Your task to perform on an android device: change text size in settings app Image 0: 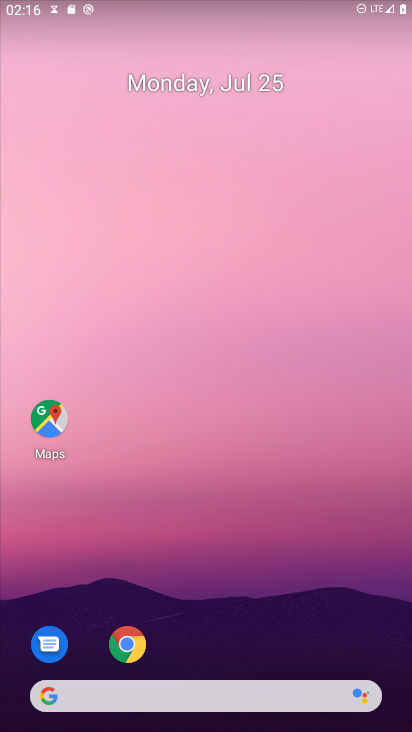
Step 0: drag from (207, 726) to (200, 329)
Your task to perform on an android device: change text size in settings app Image 1: 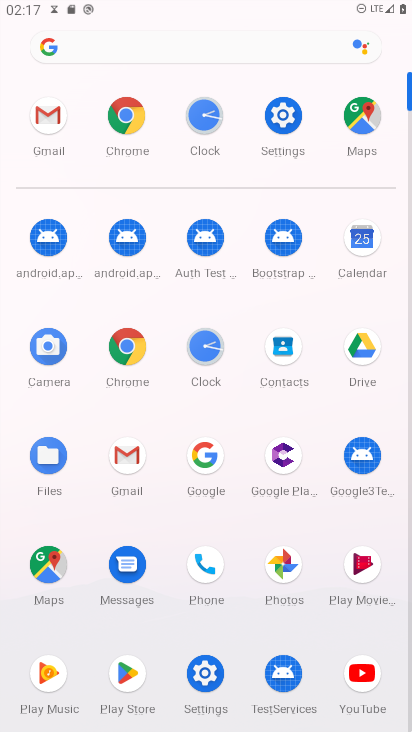
Step 1: click (276, 109)
Your task to perform on an android device: change text size in settings app Image 2: 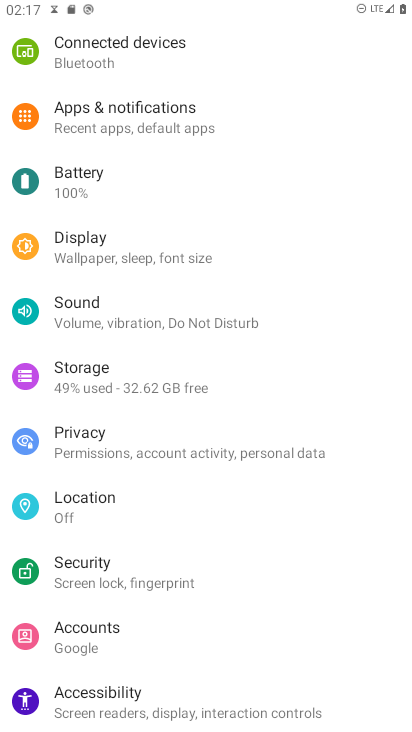
Step 2: click (98, 256)
Your task to perform on an android device: change text size in settings app Image 3: 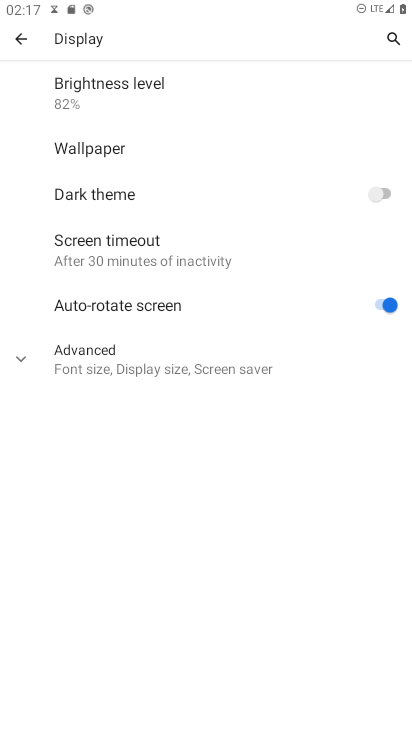
Step 3: click (102, 359)
Your task to perform on an android device: change text size in settings app Image 4: 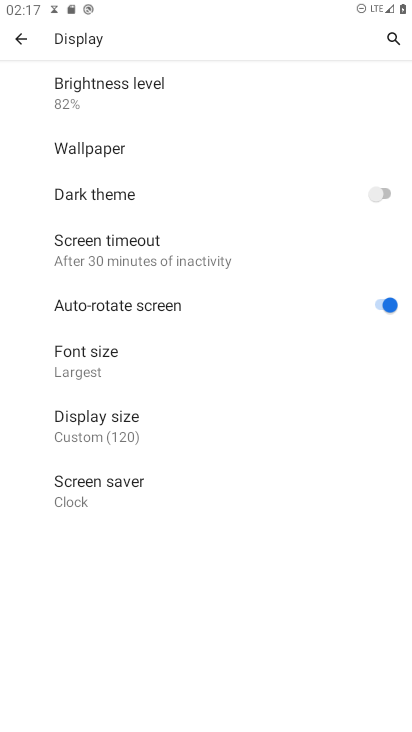
Step 4: click (102, 359)
Your task to perform on an android device: change text size in settings app Image 5: 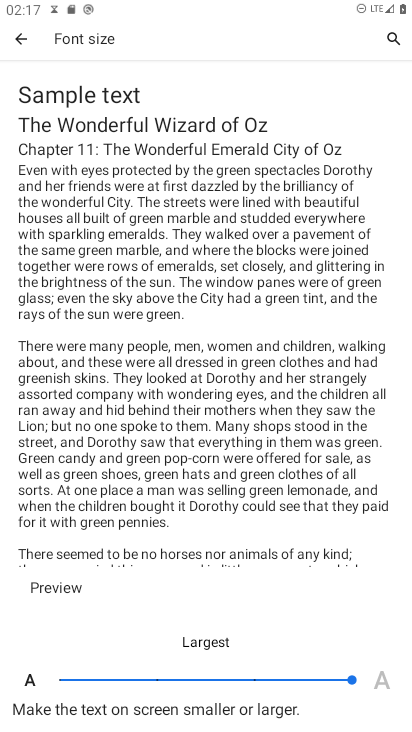
Step 5: click (252, 680)
Your task to perform on an android device: change text size in settings app Image 6: 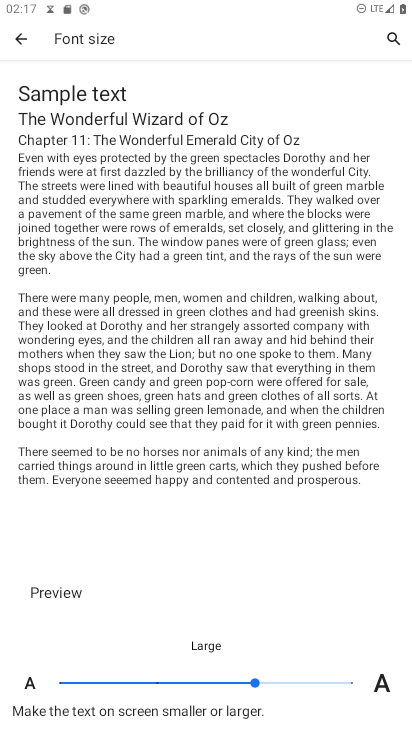
Step 6: task complete